Your task to perform on an android device: turn off smart reply in the gmail app Image 0: 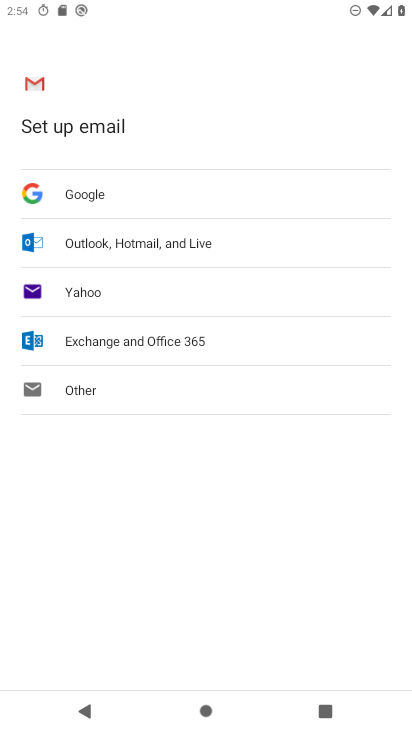
Step 0: press home button
Your task to perform on an android device: turn off smart reply in the gmail app Image 1: 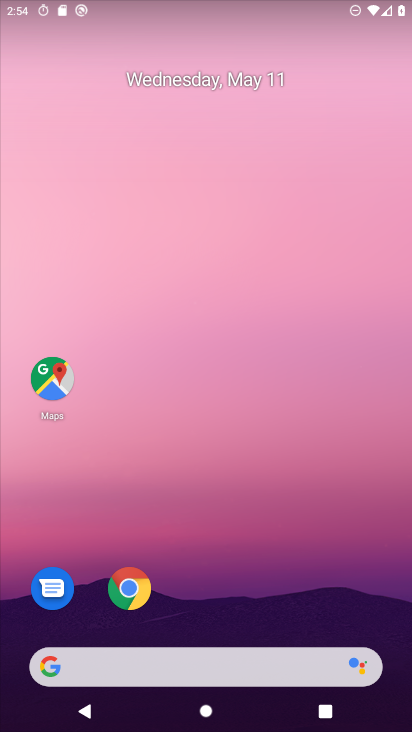
Step 1: drag from (277, 533) to (296, 91)
Your task to perform on an android device: turn off smart reply in the gmail app Image 2: 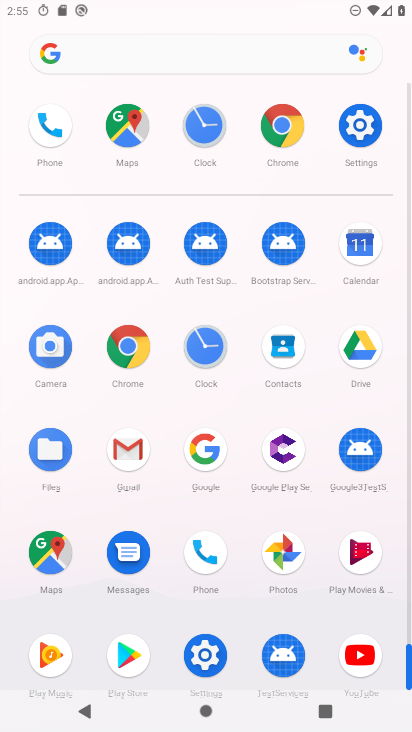
Step 2: click (126, 443)
Your task to perform on an android device: turn off smart reply in the gmail app Image 3: 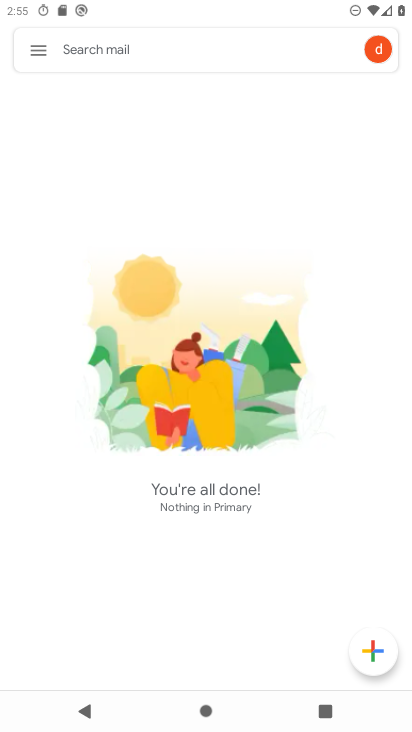
Step 3: click (34, 52)
Your task to perform on an android device: turn off smart reply in the gmail app Image 4: 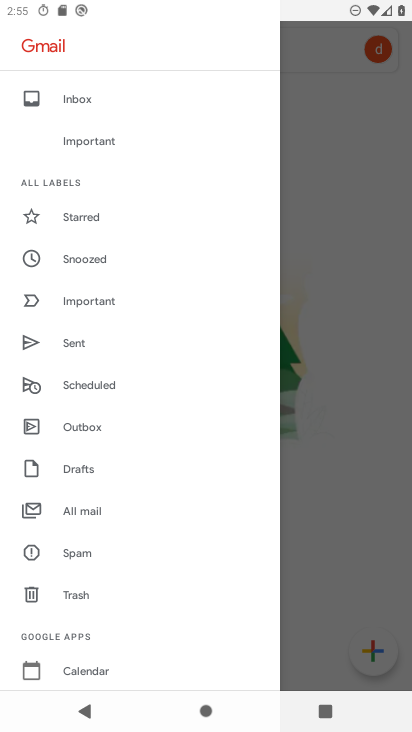
Step 4: drag from (135, 601) to (183, 294)
Your task to perform on an android device: turn off smart reply in the gmail app Image 5: 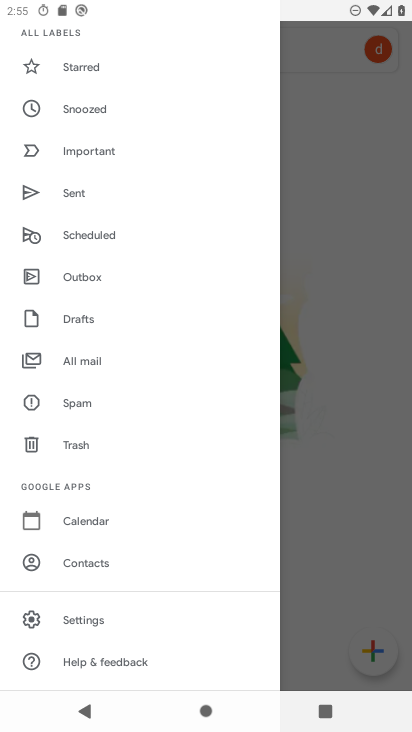
Step 5: drag from (139, 288) to (154, 235)
Your task to perform on an android device: turn off smart reply in the gmail app Image 6: 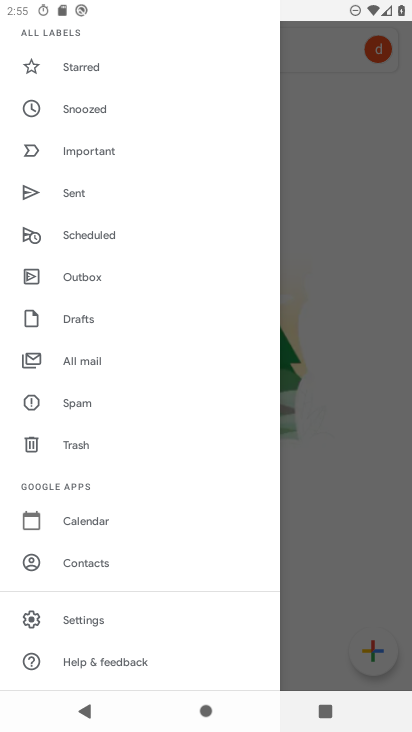
Step 6: click (82, 616)
Your task to perform on an android device: turn off smart reply in the gmail app Image 7: 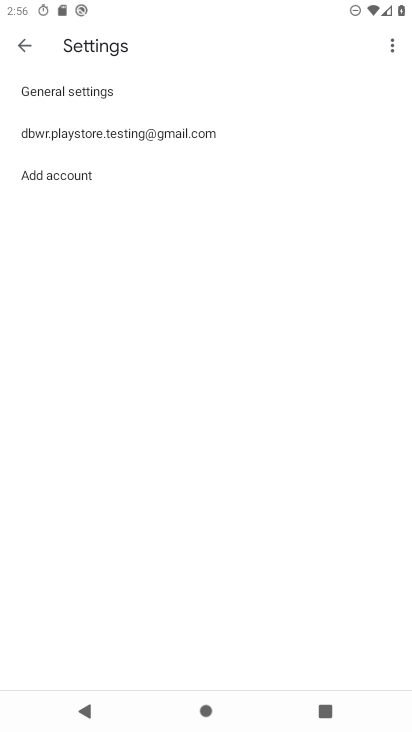
Step 7: click (145, 135)
Your task to perform on an android device: turn off smart reply in the gmail app Image 8: 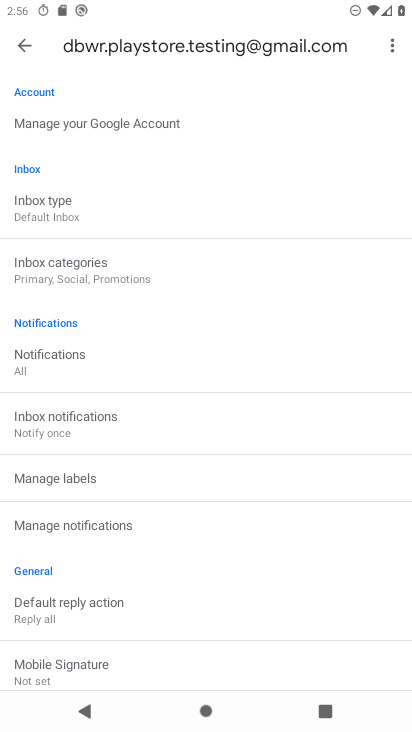
Step 8: drag from (217, 501) to (225, 289)
Your task to perform on an android device: turn off smart reply in the gmail app Image 9: 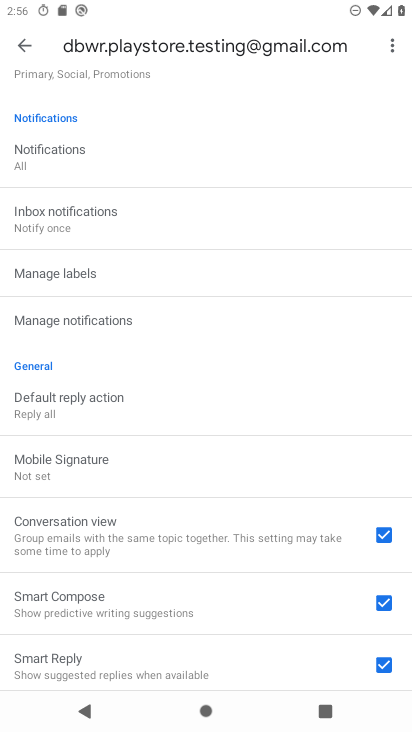
Step 9: drag from (215, 530) to (215, 245)
Your task to perform on an android device: turn off smart reply in the gmail app Image 10: 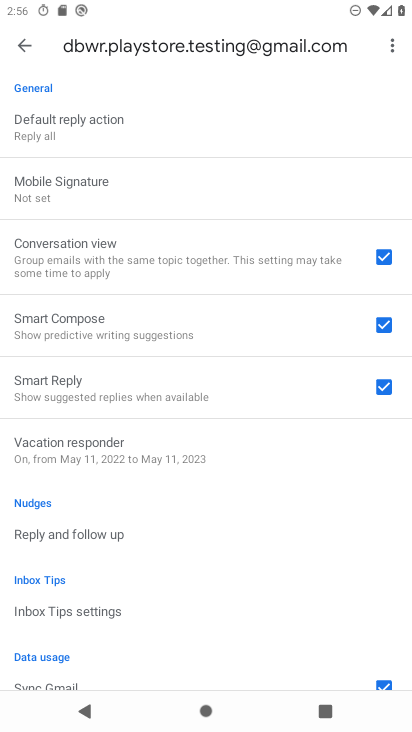
Step 10: click (374, 660)
Your task to perform on an android device: turn off smart reply in the gmail app Image 11: 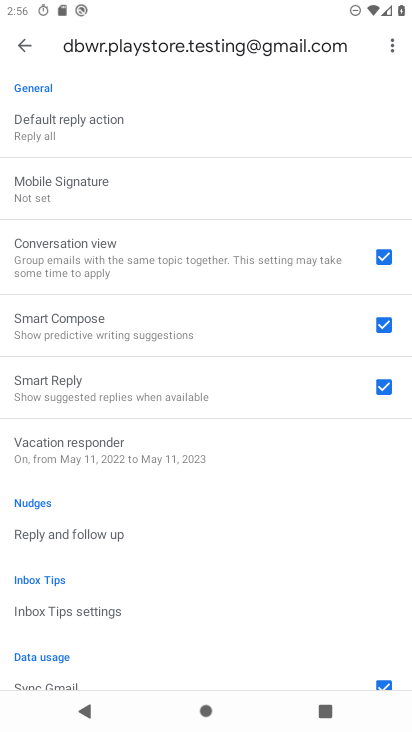
Step 11: click (384, 385)
Your task to perform on an android device: turn off smart reply in the gmail app Image 12: 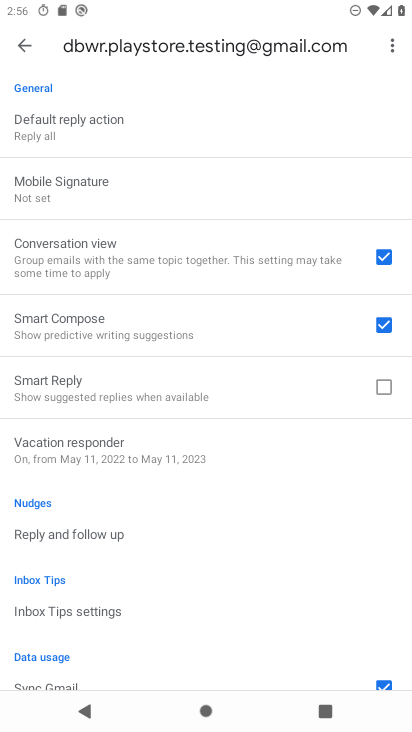
Step 12: task complete